Your task to perform on an android device: Open Google Image 0: 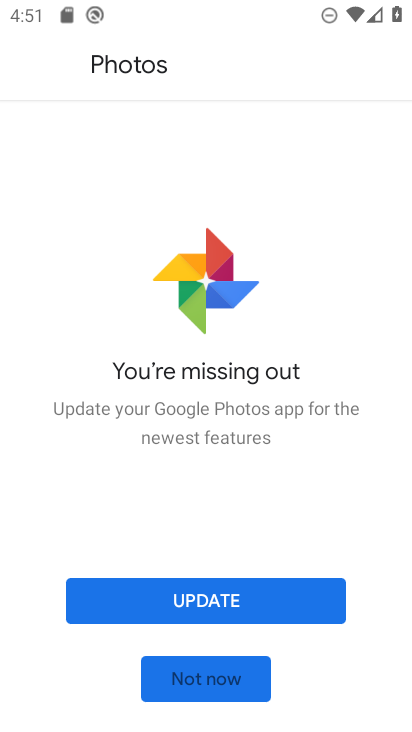
Step 0: press home button
Your task to perform on an android device: Open Google Image 1: 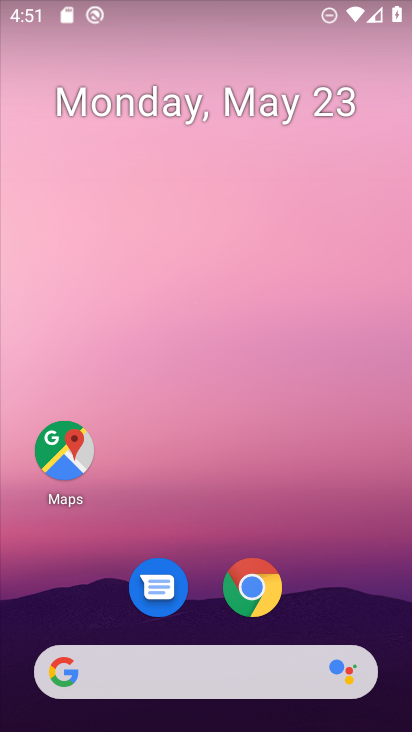
Step 1: click (168, 667)
Your task to perform on an android device: Open Google Image 2: 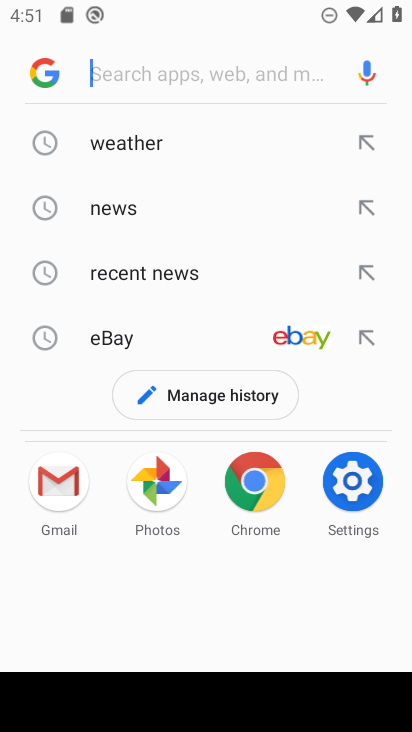
Step 2: click (50, 69)
Your task to perform on an android device: Open Google Image 3: 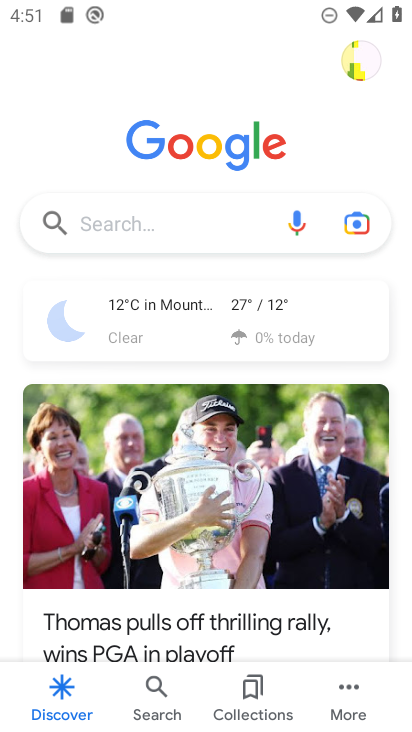
Step 3: task complete